Your task to perform on an android device: Open the contacts Image 0: 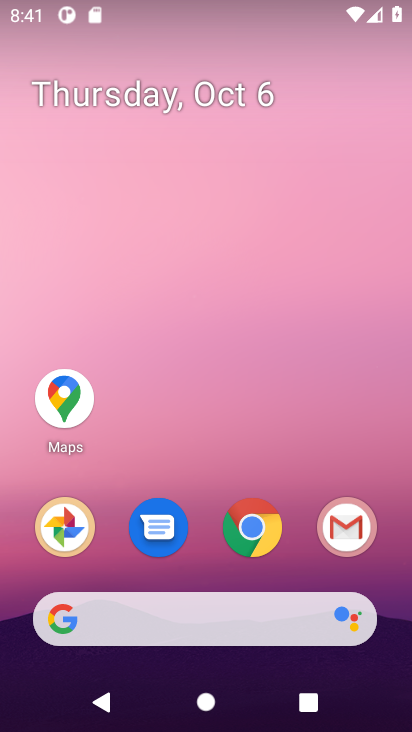
Step 0: drag from (195, 452) to (209, 3)
Your task to perform on an android device: Open the contacts Image 1: 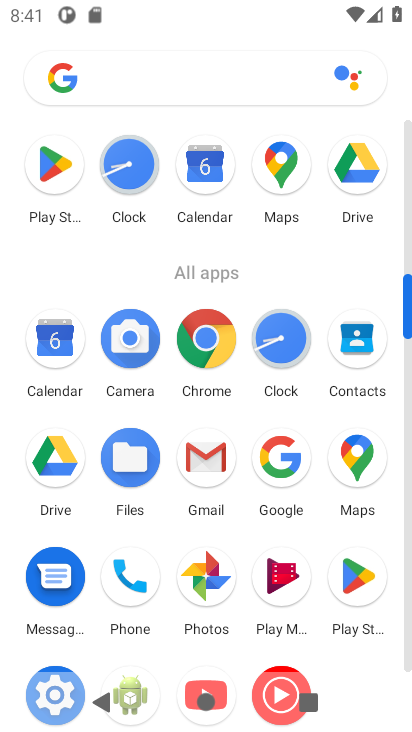
Step 1: click (367, 361)
Your task to perform on an android device: Open the contacts Image 2: 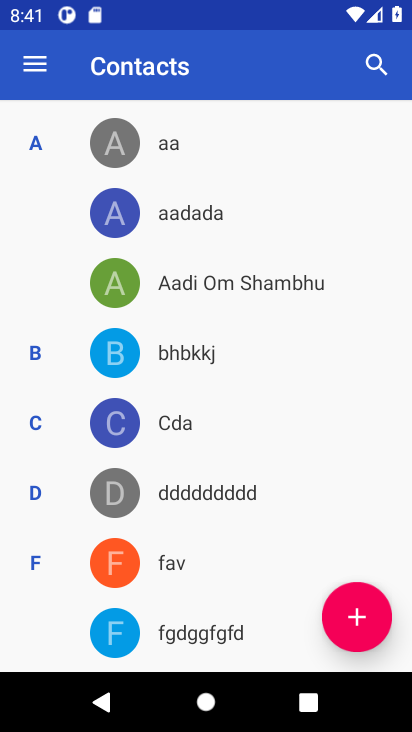
Step 2: drag from (185, 622) to (198, 343)
Your task to perform on an android device: Open the contacts Image 3: 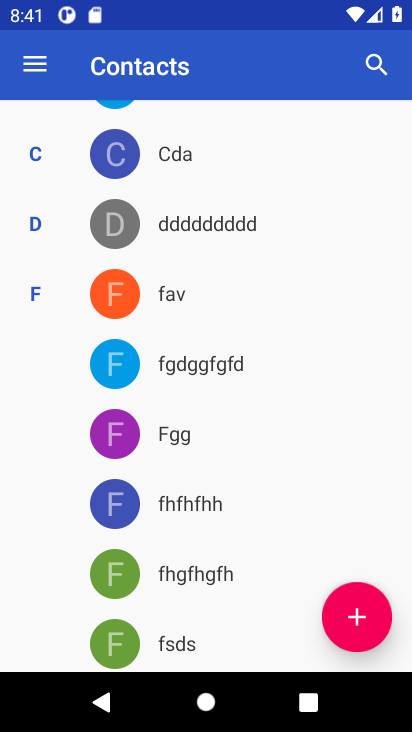
Step 3: drag from (199, 562) to (210, 418)
Your task to perform on an android device: Open the contacts Image 4: 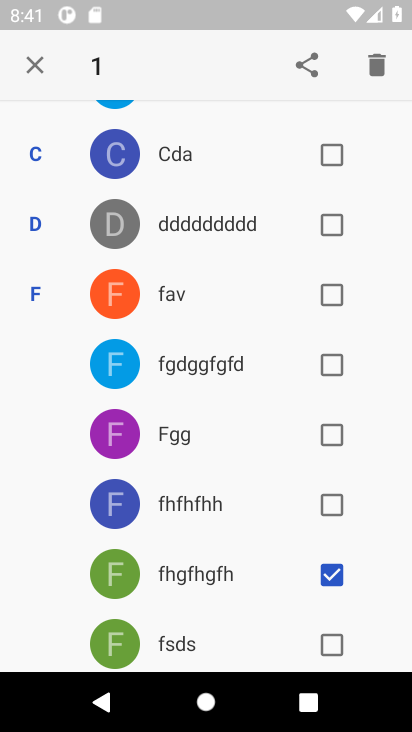
Step 4: click (32, 61)
Your task to perform on an android device: Open the contacts Image 5: 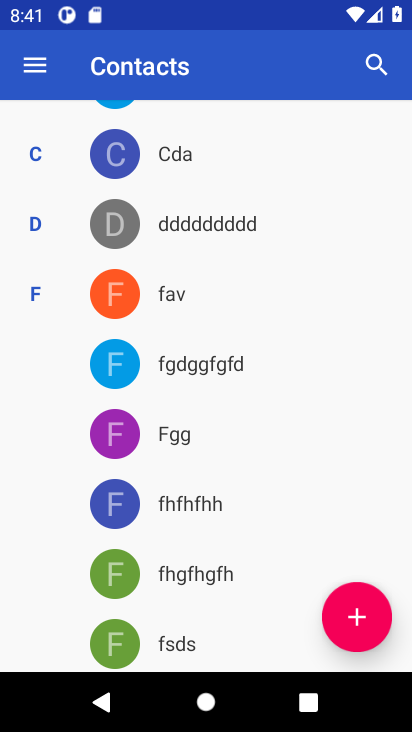
Step 5: task complete